Your task to perform on an android device: delete the emails in spam in the gmail app Image 0: 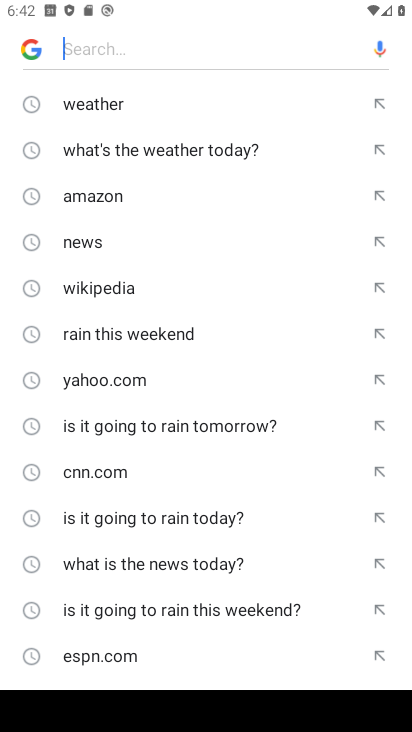
Step 0: press home button
Your task to perform on an android device: delete the emails in spam in the gmail app Image 1: 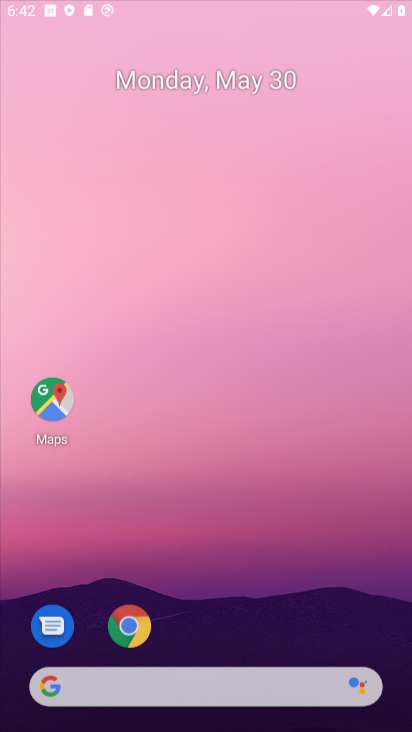
Step 1: drag from (321, 609) to (316, 21)
Your task to perform on an android device: delete the emails in spam in the gmail app Image 2: 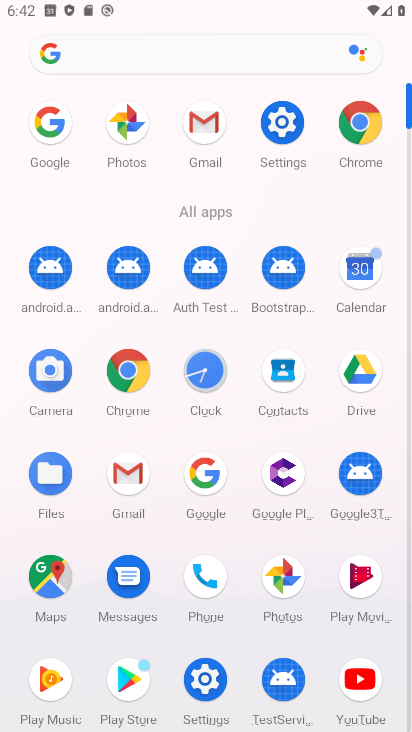
Step 2: click (194, 139)
Your task to perform on an android device: delete the emails in spam in the gmail app Image 3: 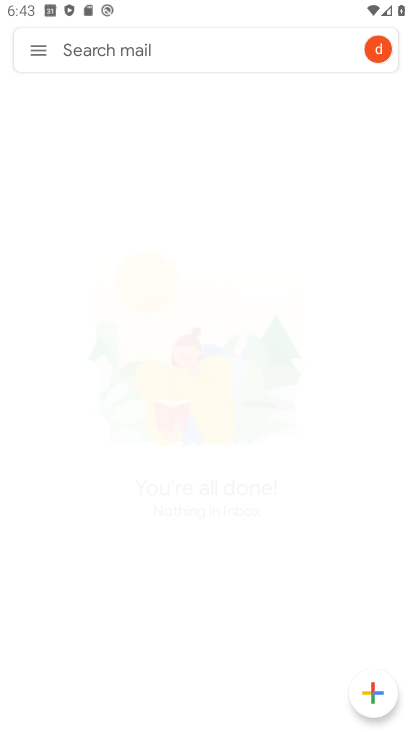
Step 3: click (31, 47)
Your task to perform on an android device: delete the emails in spam in the gmail app Image 4: 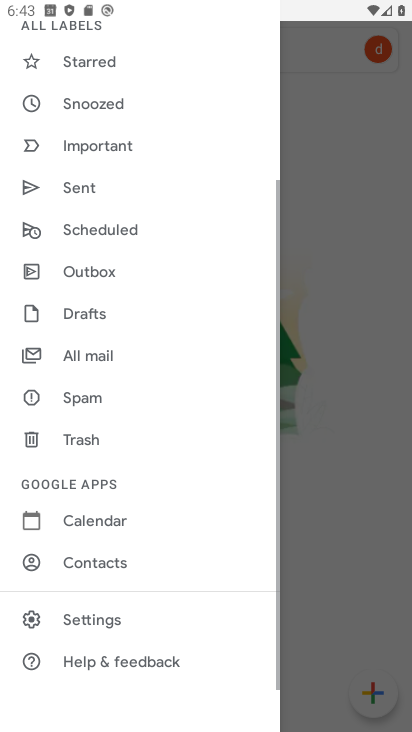
Step 4: click (73, 391)
Your task to perform on an android device: delete the emails in spam in the gmail app Image 5: 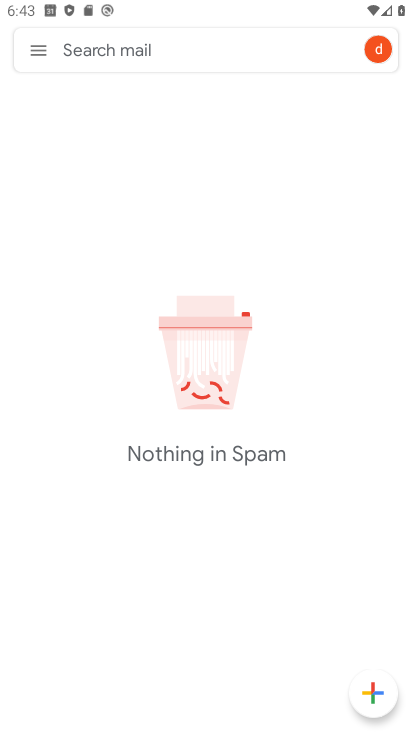
Step 5: task complete